Your task to perform on an android device: Open Yahoo.com Image 0: 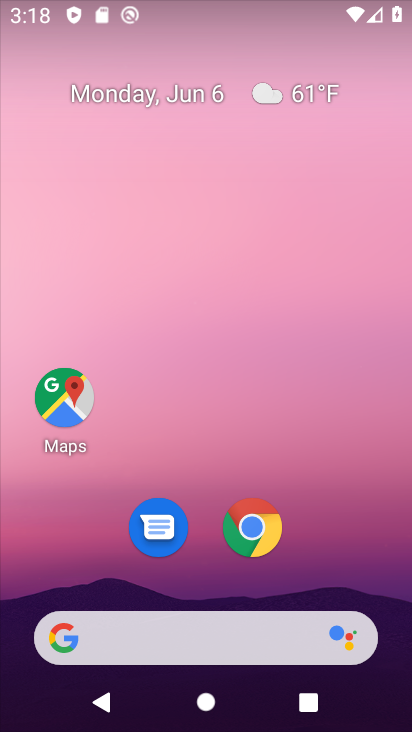
Step 0: click (252, 525)
Your task to perform on an android device: Open Yahoo.com Image 1: 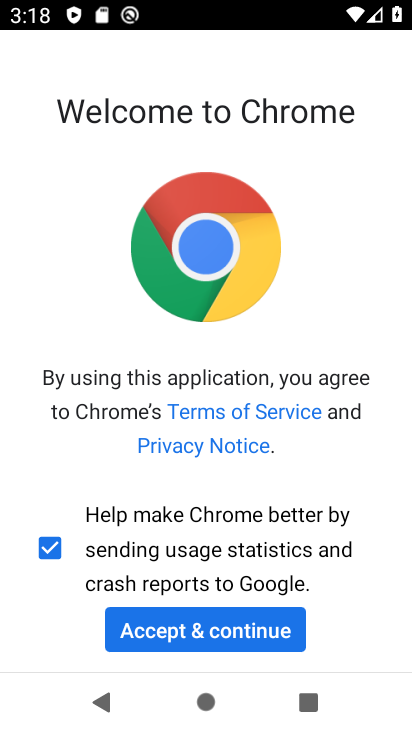
Step 1: click (176, 631)
Your task to perform on an android device: Open Yahoo.com Image 2: 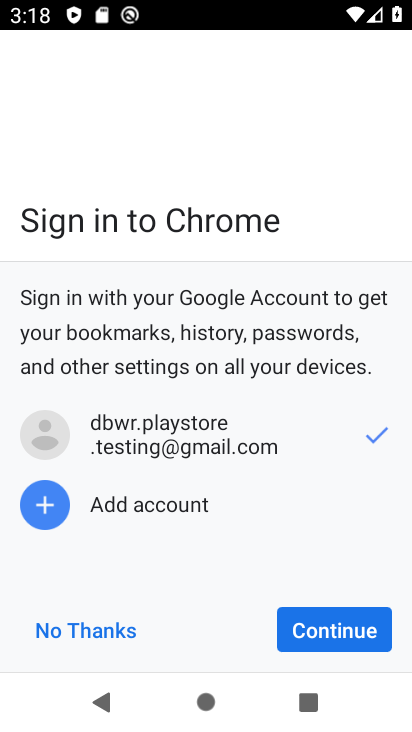
Step 2: click (319, 620)
Your task to perform on an android device: Open Yahoo.com Image 3: 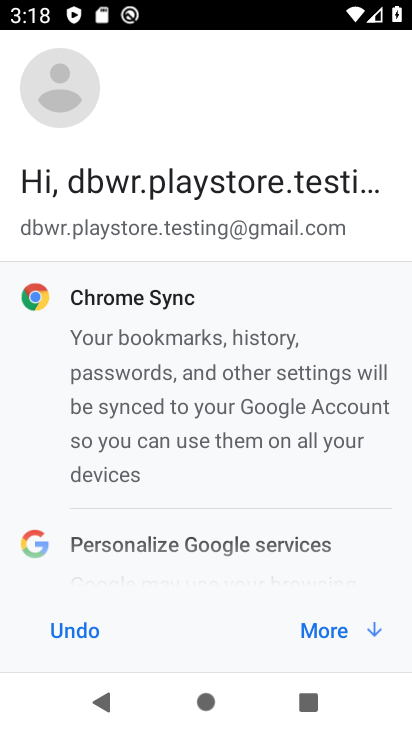
Step 3: click (319, 620)
Your task to perform on an android device: Open Yahoo.com Image 4: 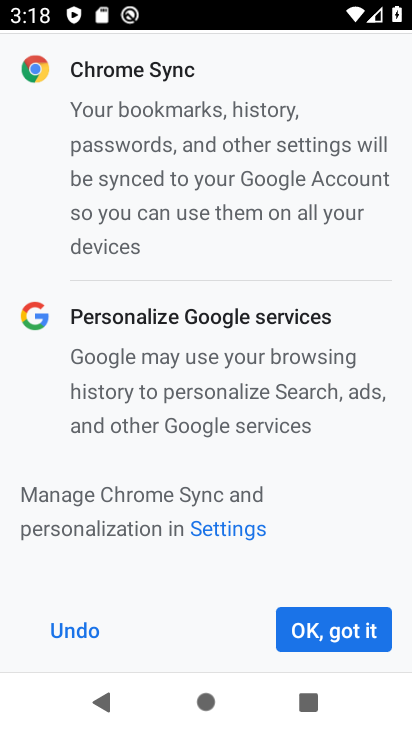
Step 4: click (319, 620)
Your task to perform on an android device: Open Yahoo.com Image 5: 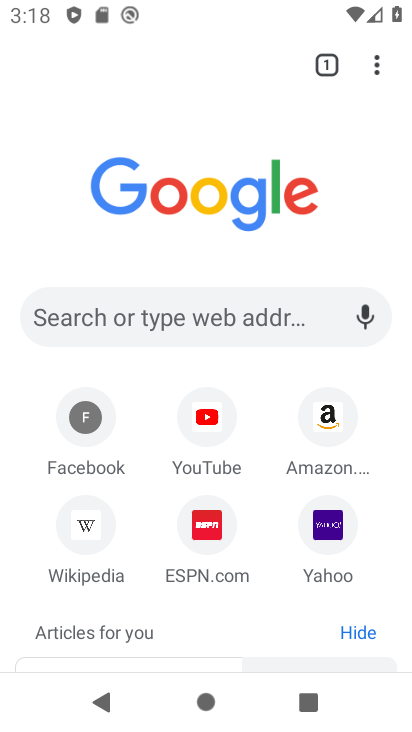
Step 5: click (332, 541)
Your task to perform on an android device: Open Yahoo.com Image 6: 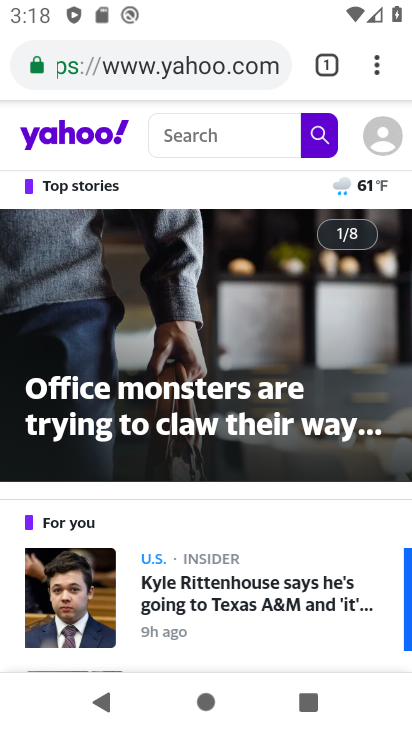
Step 6: task complete